Your task to perform on an android device: Clear all items from cart on bestbuy. Search for "acer predator" on bestbuy, select the first entry, add it to the cart, then select checkout. Image 0: 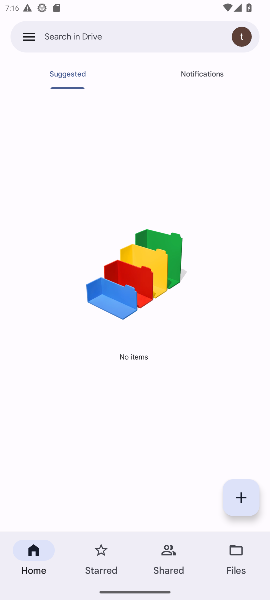
Step 0: press home button
Your task to perform on an android device: Clear all items from cart on bestbuy. Search for "acer predator" on bestbuy, select the first entry, add it to the cart, then select checkout. Image 1: 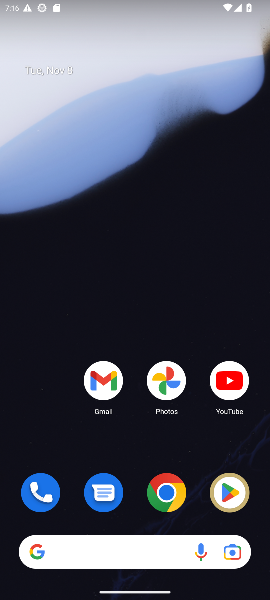
Step 1: click (171, 497)
Your task to perform on an android device: Clear all items from cart on bestbuy. Search for "acer predator" on bestbuy, select the first entry, add it to the cart, then select checkout. Image 2: 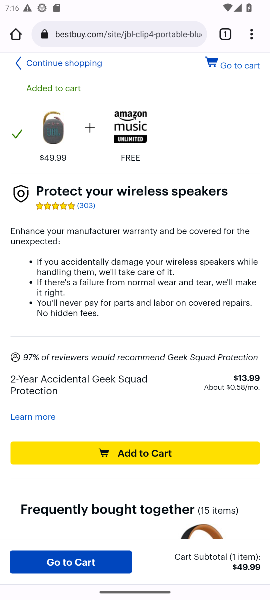
Step 2: press back button
Your task to perform on an android device: Clear all items from cart on bestbuy. Search for "acer predator" on bestbuy, select the first entry, add it to the cart, then select checkout. Image 3: 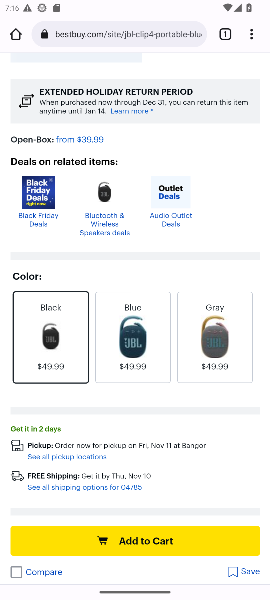
Step 3: drag from (201, 77) to (148, 500)
Your task to perform on an android device: Clear all items from cart on bestbuy. Search for "acer predator" on bestbuy, select the first entry, add it to the cart, then select checkout. Image 4: 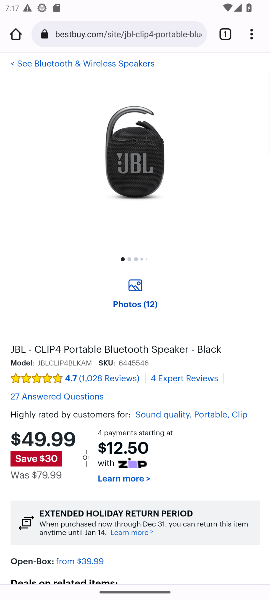
Step 4: drag from (174, 127) to (268, 544)
Your task to perform on an android device: Clear all items from cart on bestbuy. Search for "acer predator" on bestbuy, select the first entry, add it to the cart, then select checkout. Image 5: 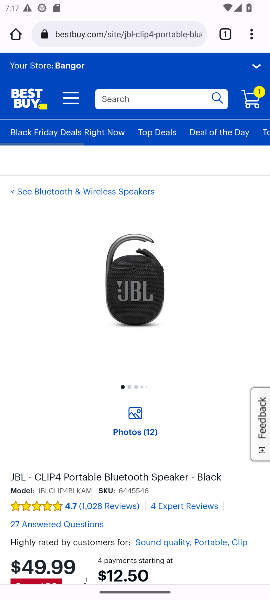
Step 5: click (251, 93)
Your task to perform on an android device: Clear all items from cart on bestbuy. Search for "acer predator" on bestbuy, select the first entry, add it to the cart, then select checkout. Image 6: 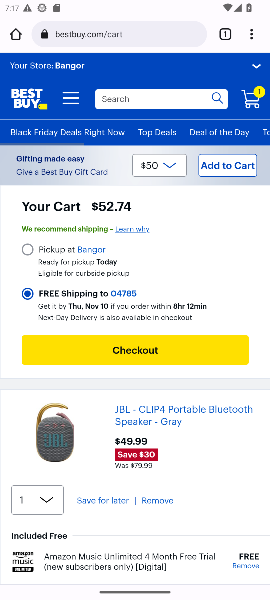
Step 6: drag from (221, 483) to (209, 328)
Your task to perform on an android device: Clear all items from cart on bestbuy. Search for "acer predator" on bestbuy, select the first entry, add it to the cart, then select checkout. Image 7: 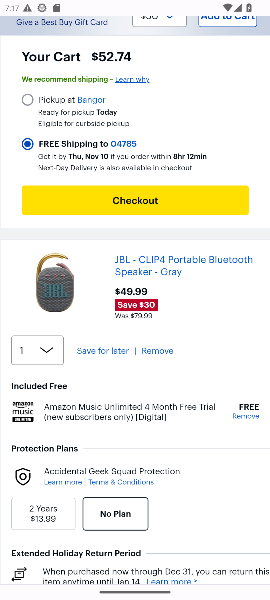
Step 7: click (154, 353)
Your task to perform on an android device: Clear all items from cart on bestbuy. Search for "acer predator" on bestbuy, select the first entry, add it to the cart, then select checkout. Image 8: 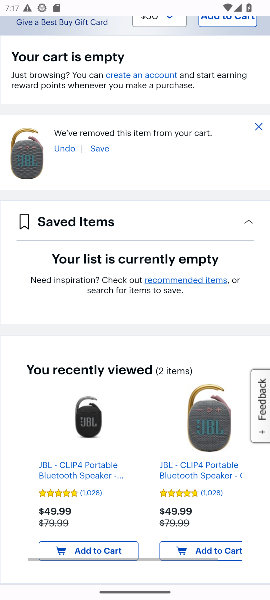
Step 8: drag from (163, 147) to (231, 505)
Your task to perform on an android device: Clear all items from cart on bestbuy. Search for "acer predator" on bestbuy, select the first entry, add it to the cart, then select checkout. Image 9: 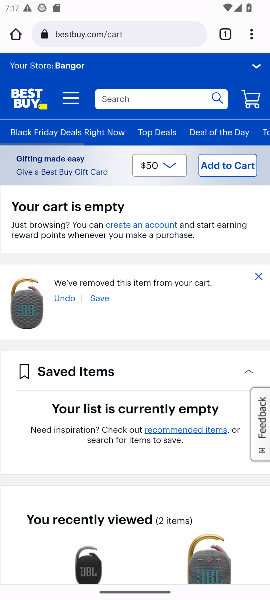
Step 9: click (182, 97)
Your task to perform on an android device: Clear all items from cart on bestbuy. Search for "acer predator" on bestbuy, select the first entry, add it to the cart, then select checkout. Image 10: 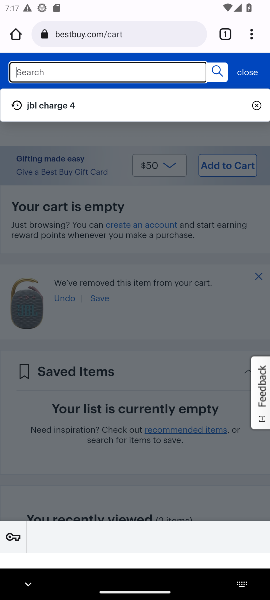
Step 10: type "acer predator"
Your task to perform on an android device: Clear all items from cart on bestbuy. Search for "acer predator" on bestbuy, select the first entry, add it to the cart, then select checkout. Image 11: 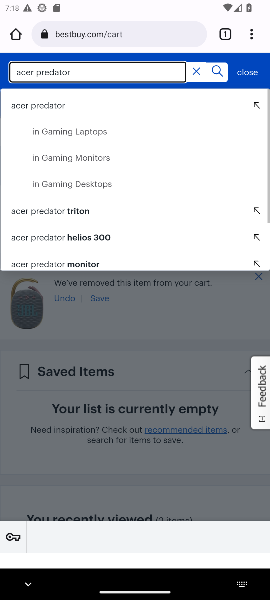
Step 11: click (52, 105)
Your task to perform on an android device: Clear all items from cart on bestbuy. Search for "acer predator" on bestbuy, select the first entry, add it to the cart, then select checkout. Image 12: 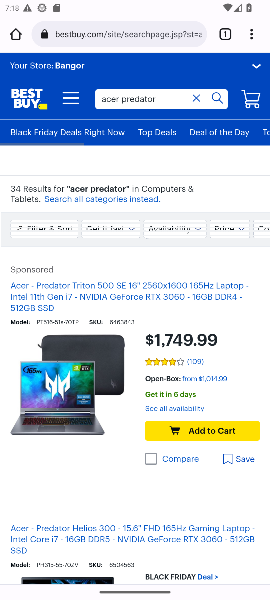
Step 12: click (67, 388)
Your task to perform on an android device: Clear all items from cart on bestbuy. Search for "acer predator" on bestbuy, select the first entry, add it to the cart, then select checkout. Image 13: 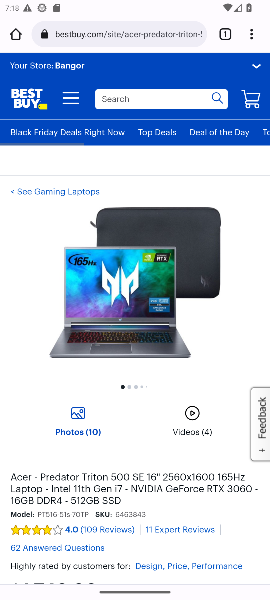
Step 13: drag from (164, 355) to (208, 102)
Your task to perform on an android device: Clear all items from cart on bestbuy. Search for "acer predator" on bestbuy, select the first entry, add it to the cart, then select checkout. Image 14: 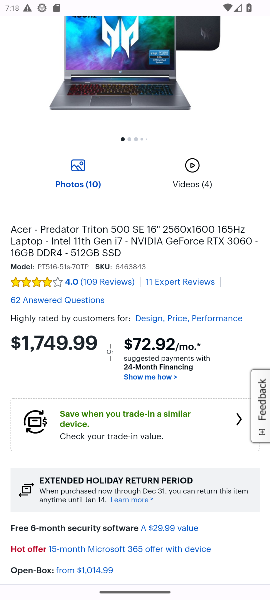
Step 14: drag from (196, 401) to (204, 131)
Your task to perform on an android device: Clear all items from cart on bestbuy. Search for "acer predator" on bestbuy, select the first entry, add it to the cart, then select checkout. Image 15: 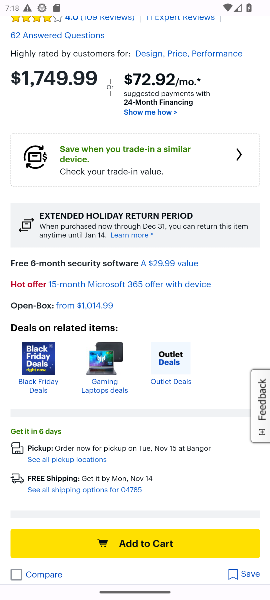
Step 15: click (158, 536)
Your task to perform on an android device: Clear all items from cart on bestbuy. Search for "acer predator" on bestbuy, select the first entry, add it to the cart, then select checkout. Image 16: 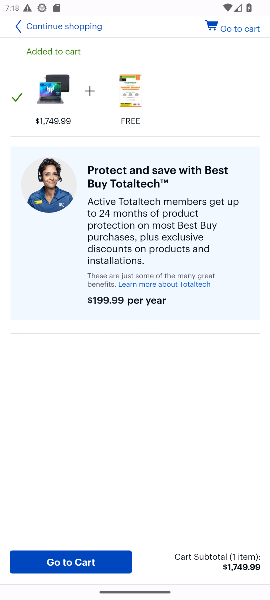
Step 16: click (70, 560)
Your task to perform on an android device: Clear all items from cart on bestbuy. Search for "acer predator" on bestbuy, select the first entry, add it to the cart, then select checkout. Image 17: 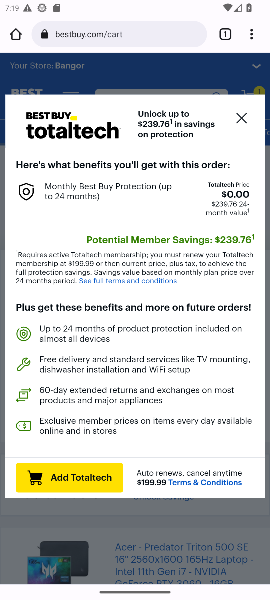
Step 17: click (242, 118)
Your task to perform on an android device: Clear all items from cart on bestbuy. Search for "acer predator" on bestbuy, select the first entry, add it to the cart, then select checkout. Image 18: 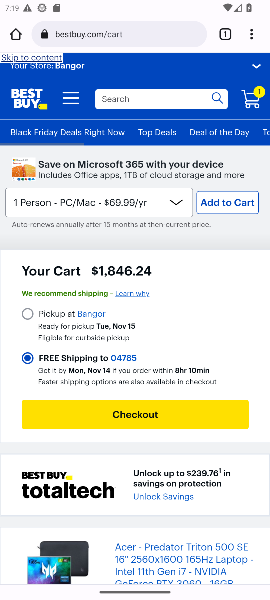
Step 18: click (256, 97)
Your task to perform on an android device: Clear all items from cart on bestbuy. Search for "acer predator" on bestbuy, select the first entry, add it to the cart, then select checkout. Image 19: 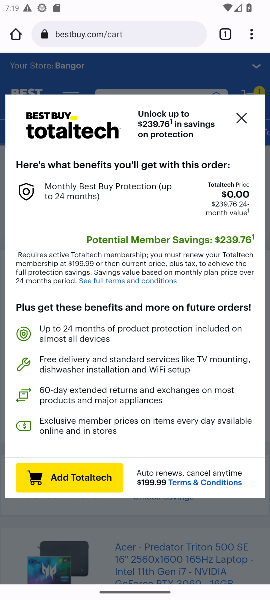
Step 19: click (245, 119)
Your task to perform on an android device: Clear all items from cart on bestbuy. Search for "acer predator" on bestbuy, select the first entry, add it to the cart, then select checkout. Image 20: 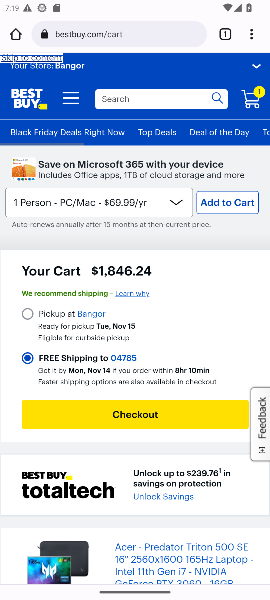
Step 20: click (152, 414)
Your task to perform on an android device: Clear all items from cart on bestbuy. Search for "acer predator" on bestbuy, select the first entry, add it to the cart, then select checkout. Image 21: 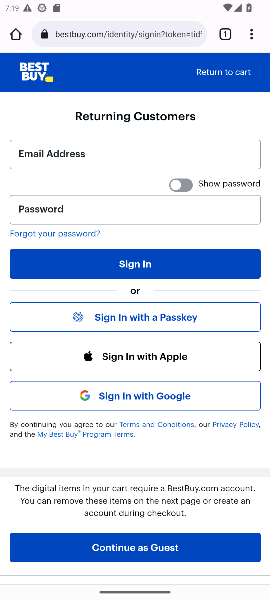
Step 21: task complete